Your task to perform on an android device: Open Google Chrome and click the shortcut for Amazon.com Image 0: 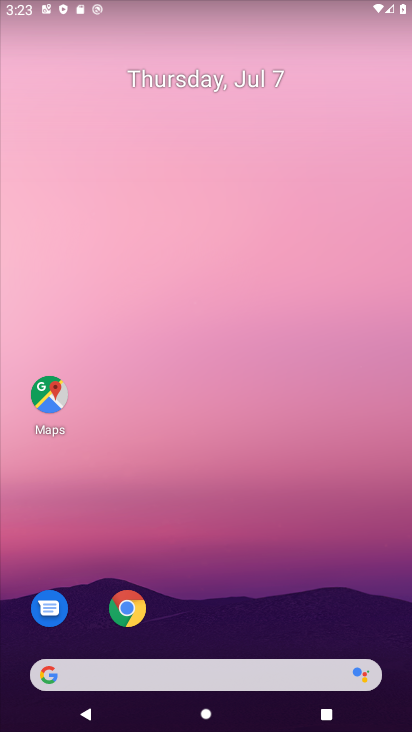
Step 0: click (127, 606)
Your task to perform on an android device: Open Google Chrome and click the shortcut for Amazon.com Image 1: 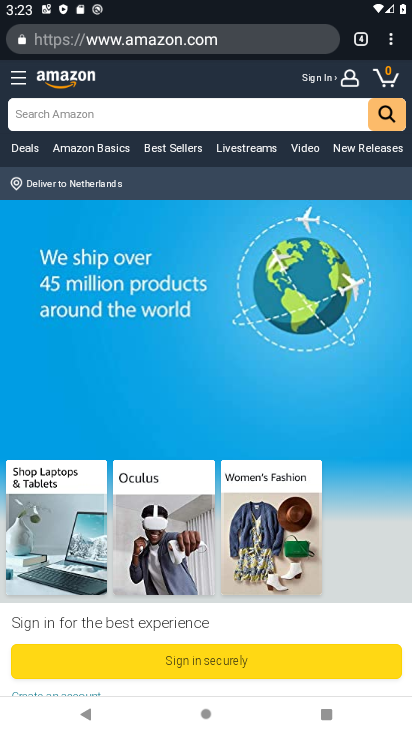
Step 1: click (389, 37)
Your task to perform on an android device: Open Google Chrome and click the shortcut for Amazon.com Image 2: 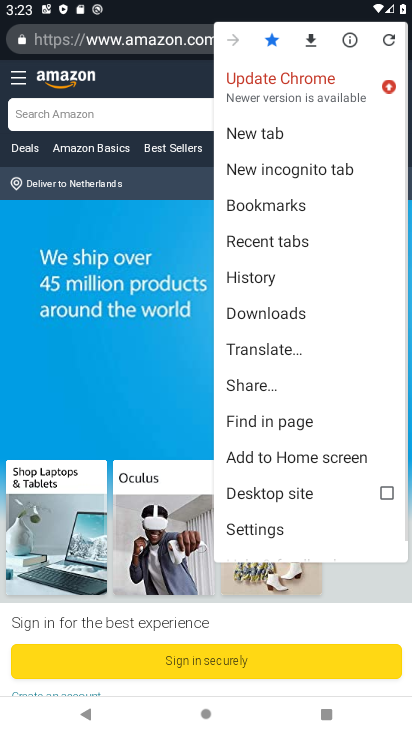
Step 2: click (242, 138)
Your task to perform on an android device: Open Google Chrome and click the shortcut for Amazon.com Image 3: 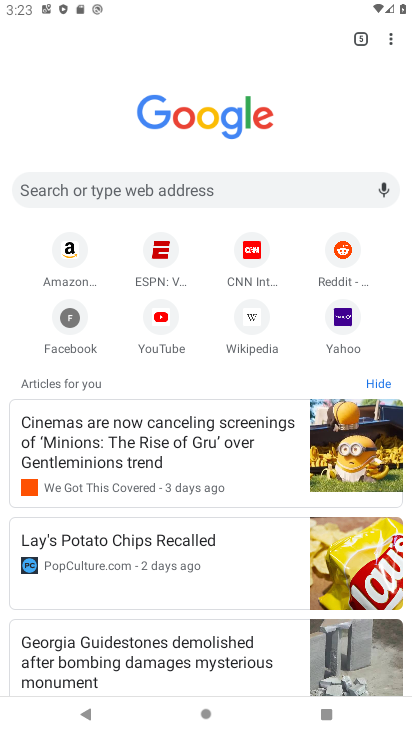
Step 3: click (69, 248)
Your task to perform on an android device: Open Google Chrome and click the shortcut for Amazon.com Image 4: 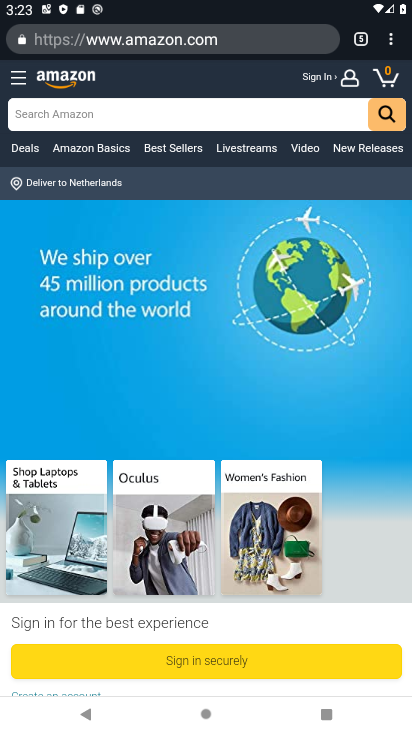
Step 4: task complete